Your task to perform on an android device: allow cookies in the chrome app Image 0: 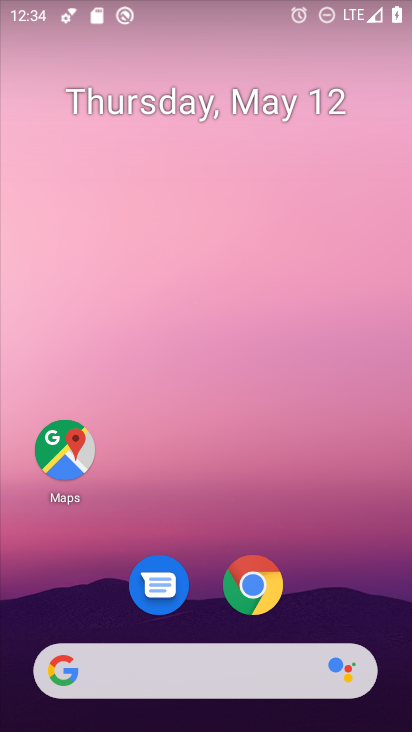
Step 0: click (268, 595)
Your task to perform on an android device: allow cookies in the chrome app Image 1: 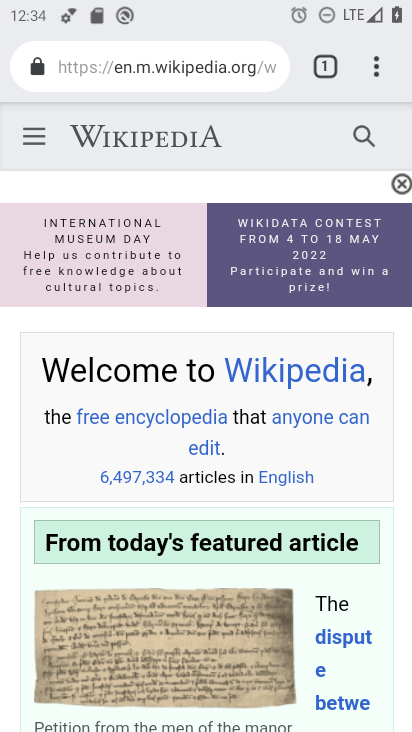
Step 1: click (374, 69)
Your task to perform on an android device: allow cookies in the chrome app Image 2: 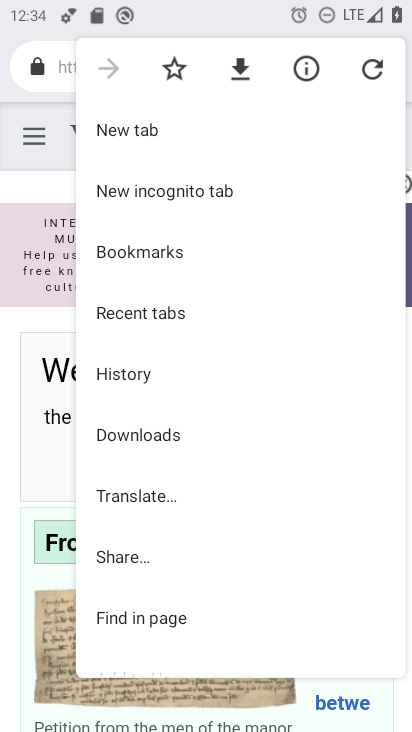
Step 2: drag from (219, 525) to (242, 214)
Your task to perform on an android device: allow cookies in the chrome app Image 3: 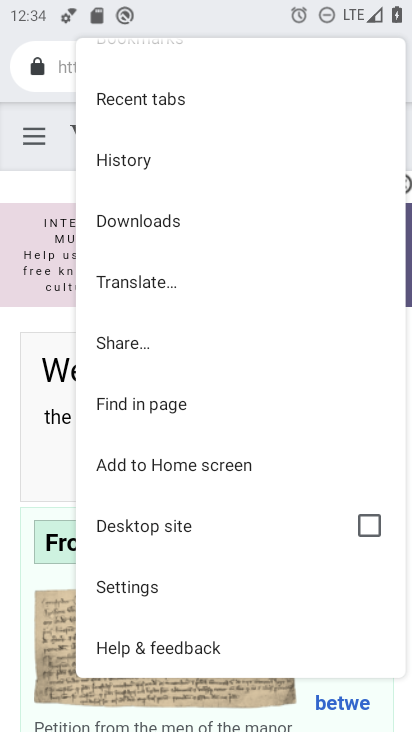
Step 3: click (167, 585)
Your task to perform on an android device: allow cookies in the chrome app Image 4: 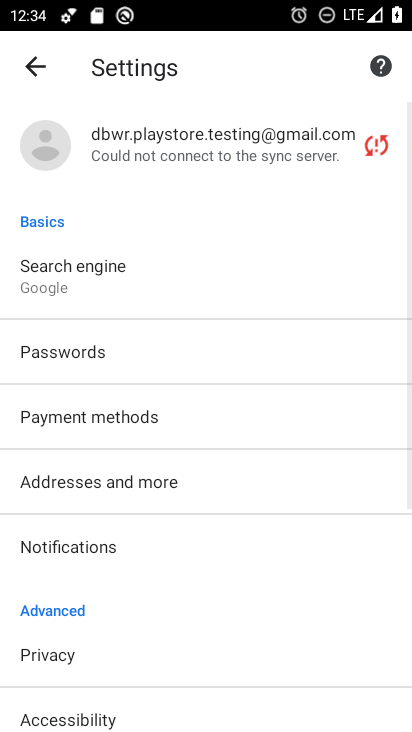
Step 4: drag from (263, 590) to (294, 268)
Your task to perform on an android device: allow cookies in the chrome app Image 5: 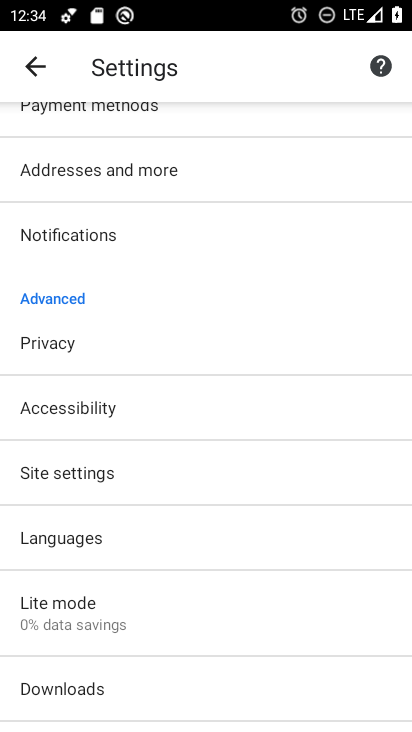
Step 5: click (218, 469)
Your task to perform on an android device: allow cookies in the chrome app Image 6: 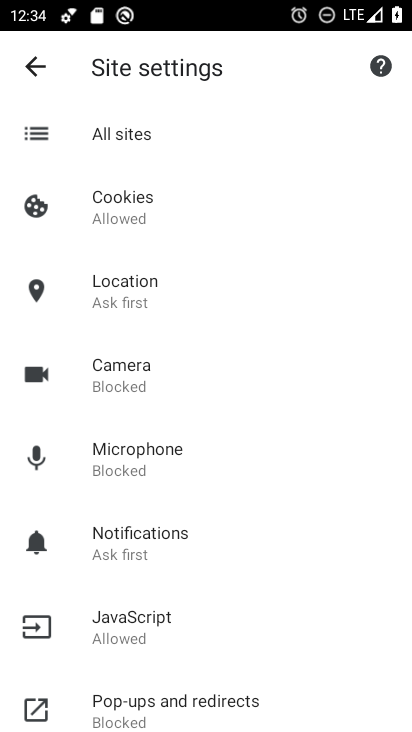
Step 6: click (159, 210)
Your task to perform on an android device: allow cookies in the chrome app Image 7: 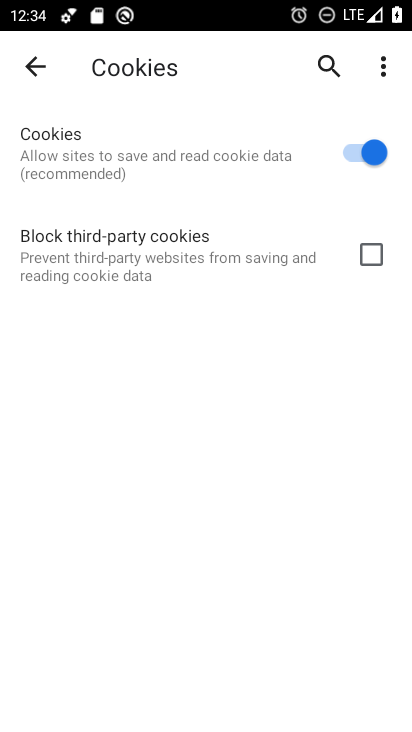
Step 7: task complete